Your task to perform on an android device: Find coffee shops on Maps Image 0: 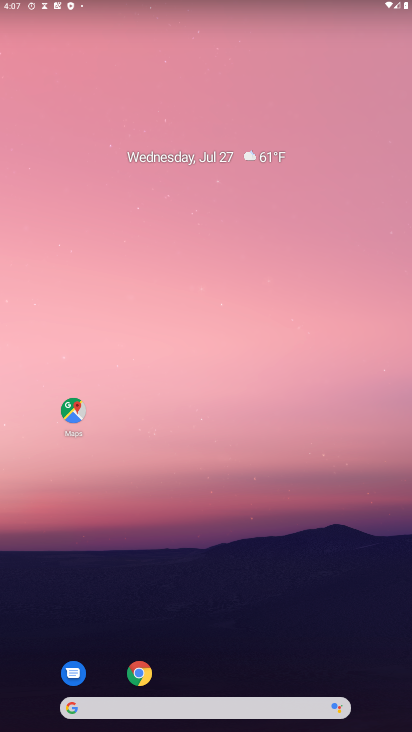
Step 0: click (72, 424)
Your task to perform on an android device: Find coffee shops on Maps Image 1: 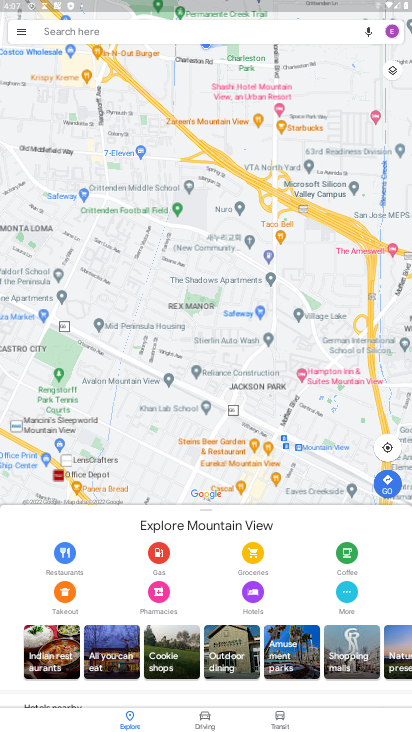
Step 1: click (69, 28)
Your task to perform on an android device: Find coffee shops on Maps Image 2: 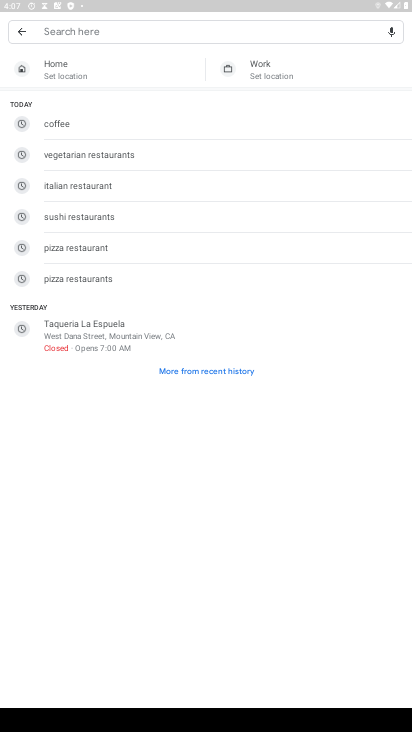
Step 2: type "coffee shops"
Your task to perform on an android device: Find coffee shops on Maps Image 3: 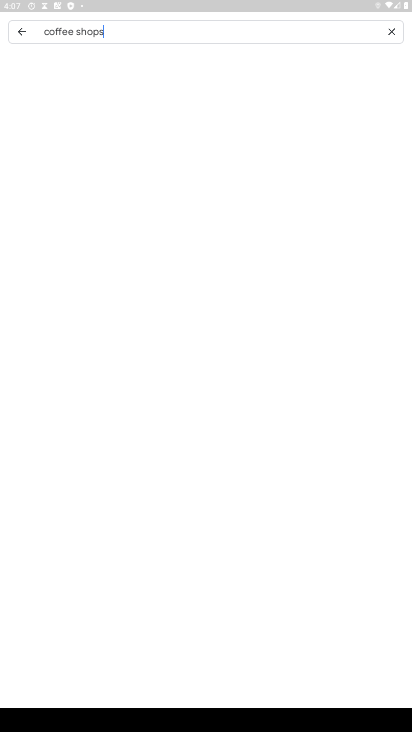
Step 3: type ""
Your task to perform on an android device: Find coffee shops on Maps Image 4: 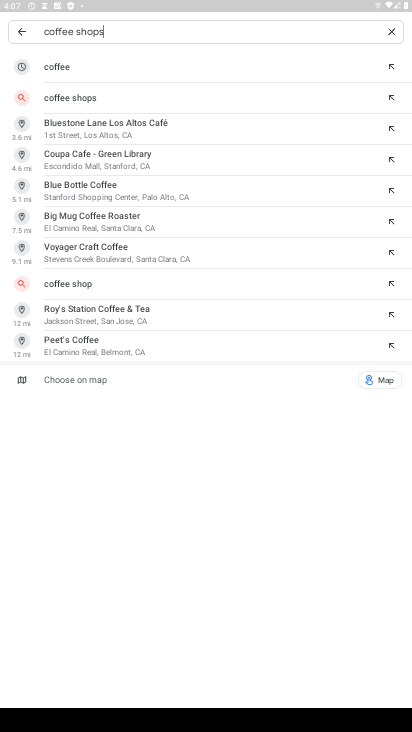
Step 4: click (104, 101)
Your task to perform on an android device: Find coffee shops on Maps Image 5: 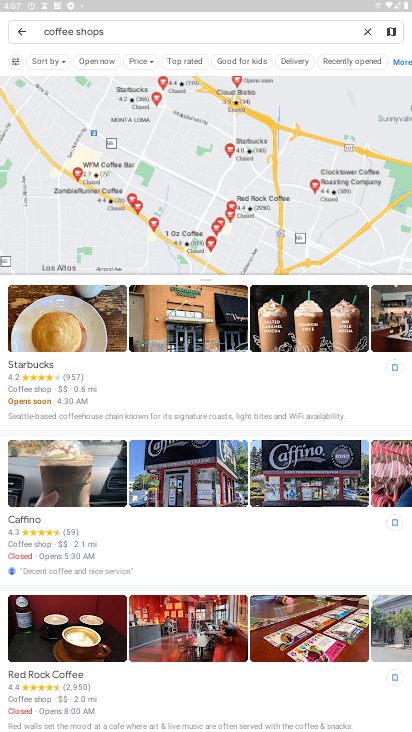
Step 5: task complete